Your task to perform on an android device: Open network settings Image 0: 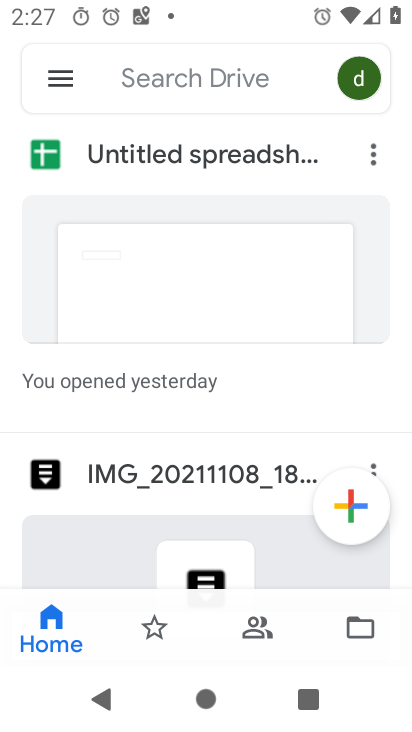
Step 0: press home button
Your task to perform on an android device: Open network settings Image 1: 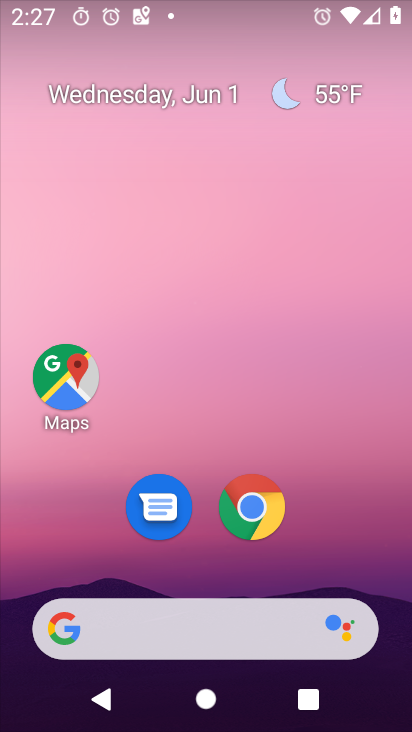
Step 1: drag from (363, 586) to (258, 30)
Your task to perform on an android device: Open network settings Image 2: 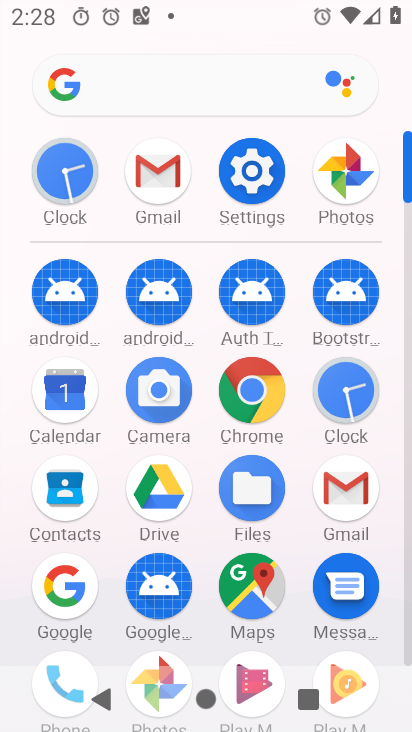
Step 2: click (253, 175)
Your task to perform on an android device: Open network settings Image 3: 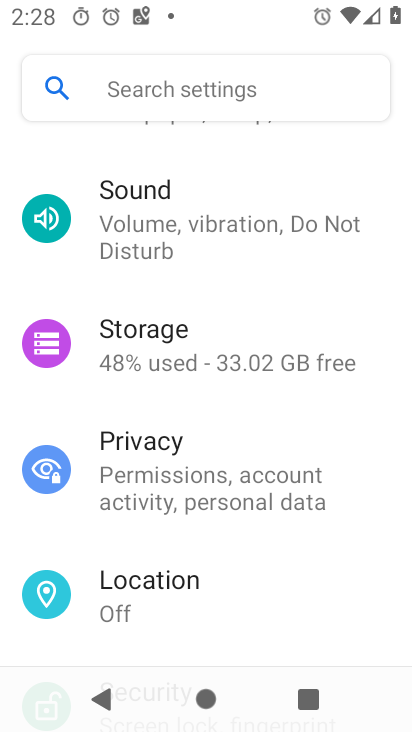
Step 3: drag from (319, 280) to (355, 537)
Your task to perform on an android device: Open network settings Image 4: 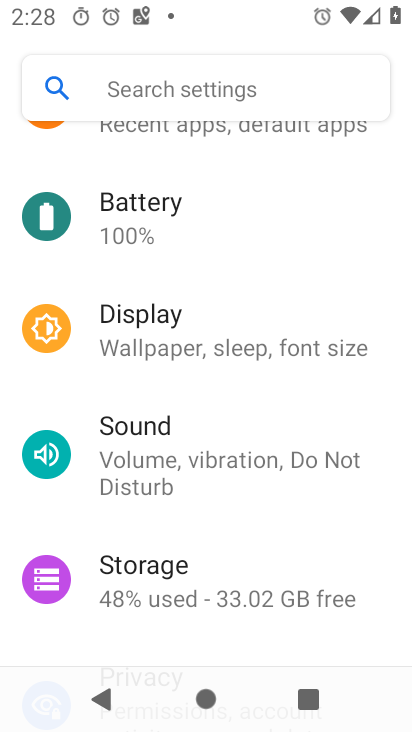
Step 4: drag from (261, 292) to (296, 484)
Your task to perform on an android device: Open network settings Image 5: 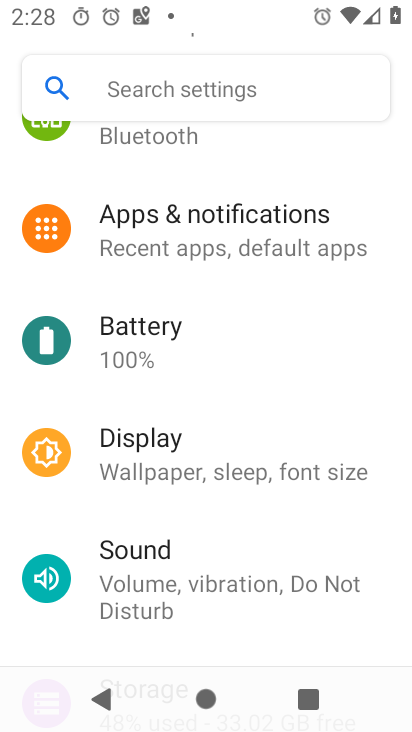
Step 5: drag from (259, 216) to (276, 508)
Your task to perform on an android device: Open network settings Image 6: 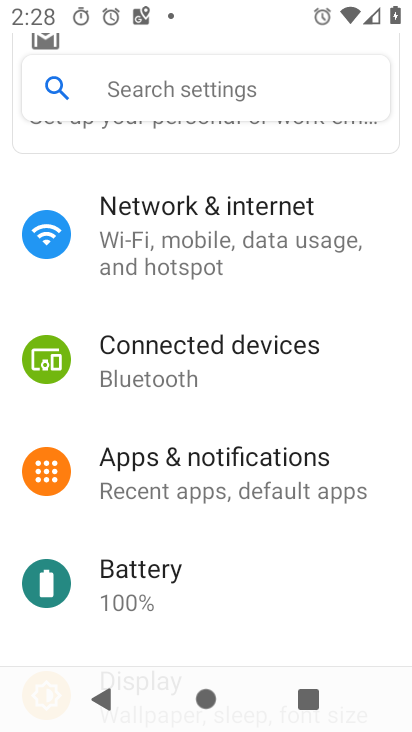
Step 6: click (188, 241)
Your task to perform on an android device: Open network settings Image 7: 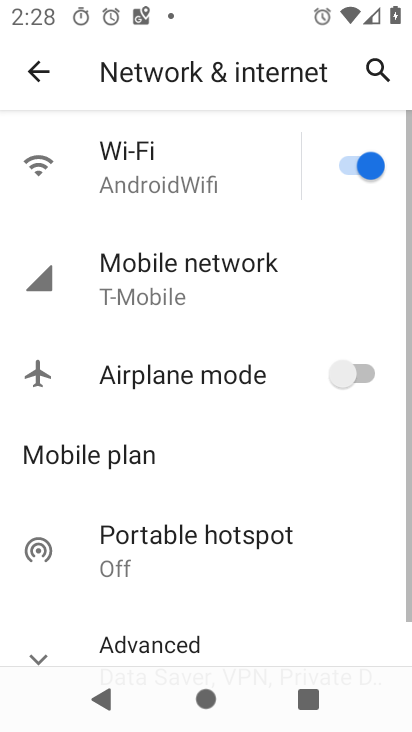
Step 7: click (165, 279)
Your task to perform on an android device: Open network settings Image 8: 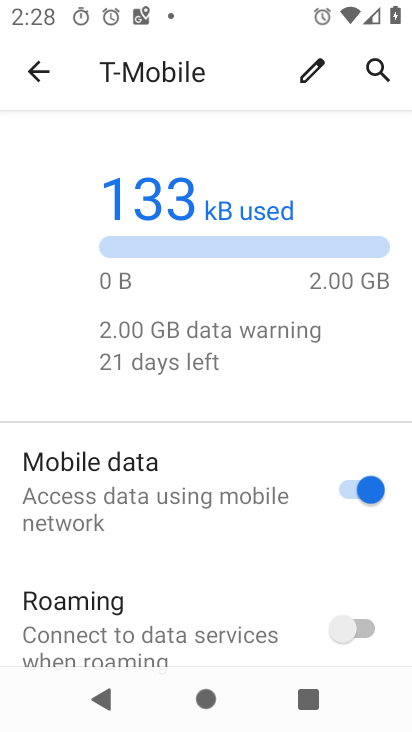
Step 8: drag from (203, 535) to (201, 111)
Your task to perform on an android device: Open network settings Image 9: 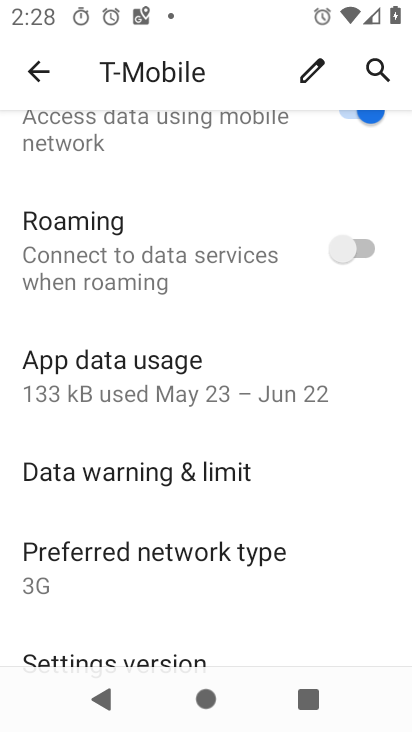
Step 9: drag from (166, 444) to (161, 174)
Your task to perform on an android device: Open network settings Image 10: 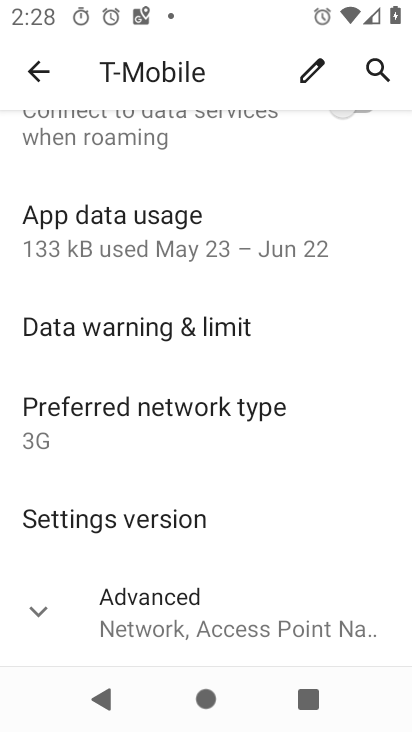
Step 10: drag from (187, 480) to (188, 276)
Your task to perform on an android device: Open network settings Image 11: 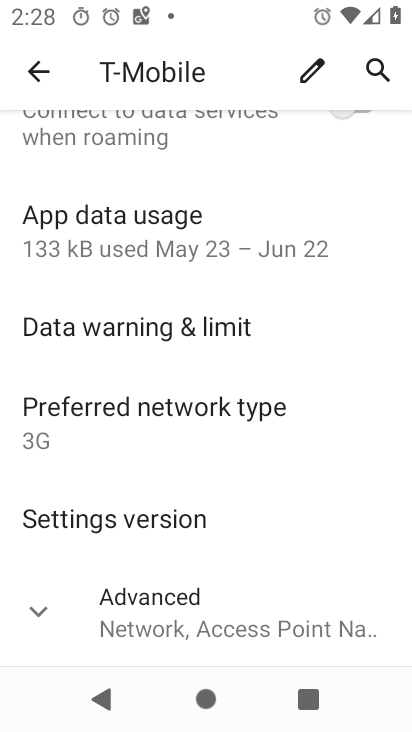
Step 11: click (29, 620)
Your task to perform on an android device: Open network settings Image 12: 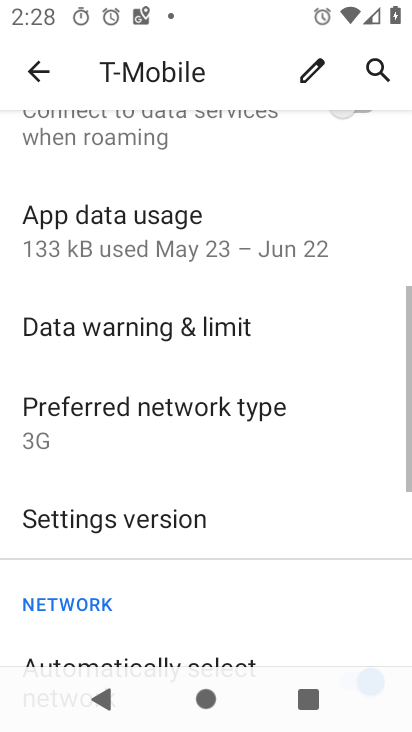
Step 12: task complete